Your task to perform on an android device: turn off data saver in the chrome app Image 0: 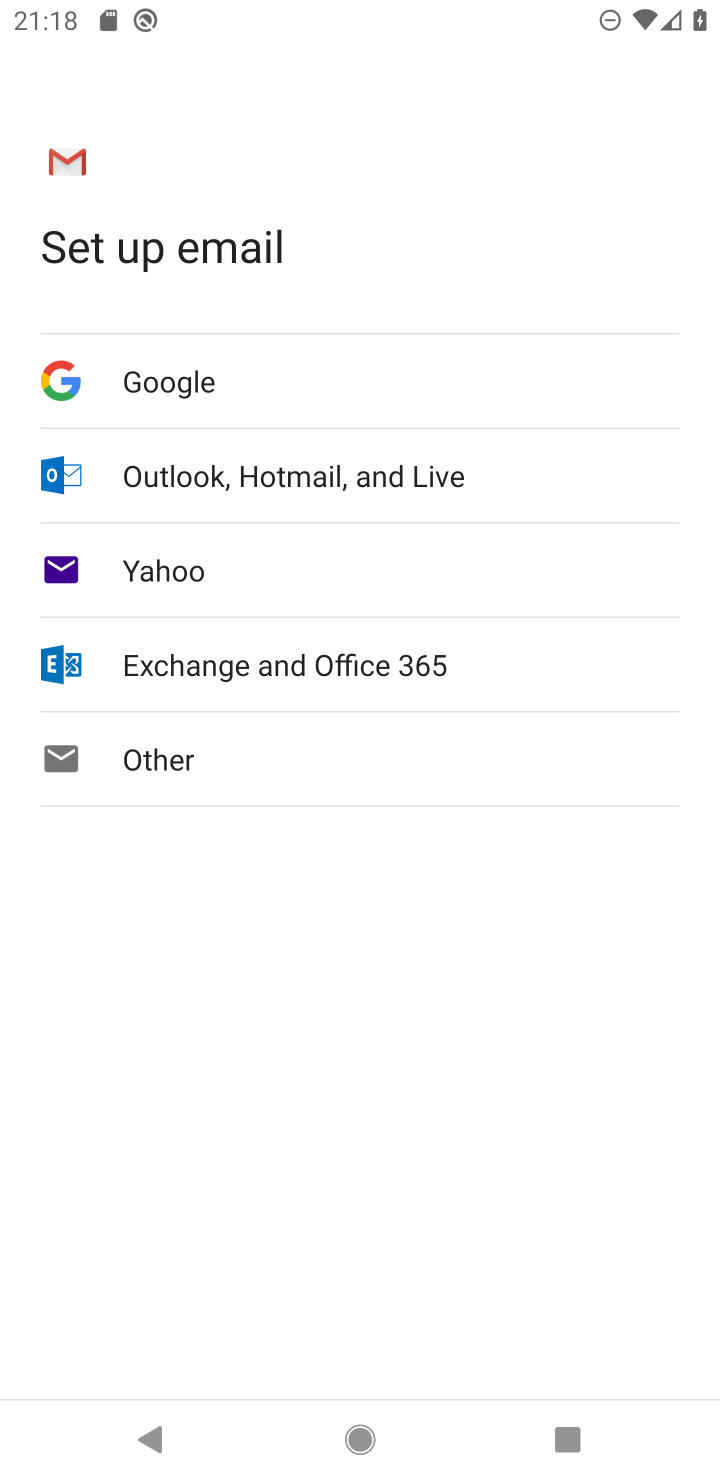
Step 0: press home button
Your task to perform on an android device: turn off data saver in the chrome app Image 1: 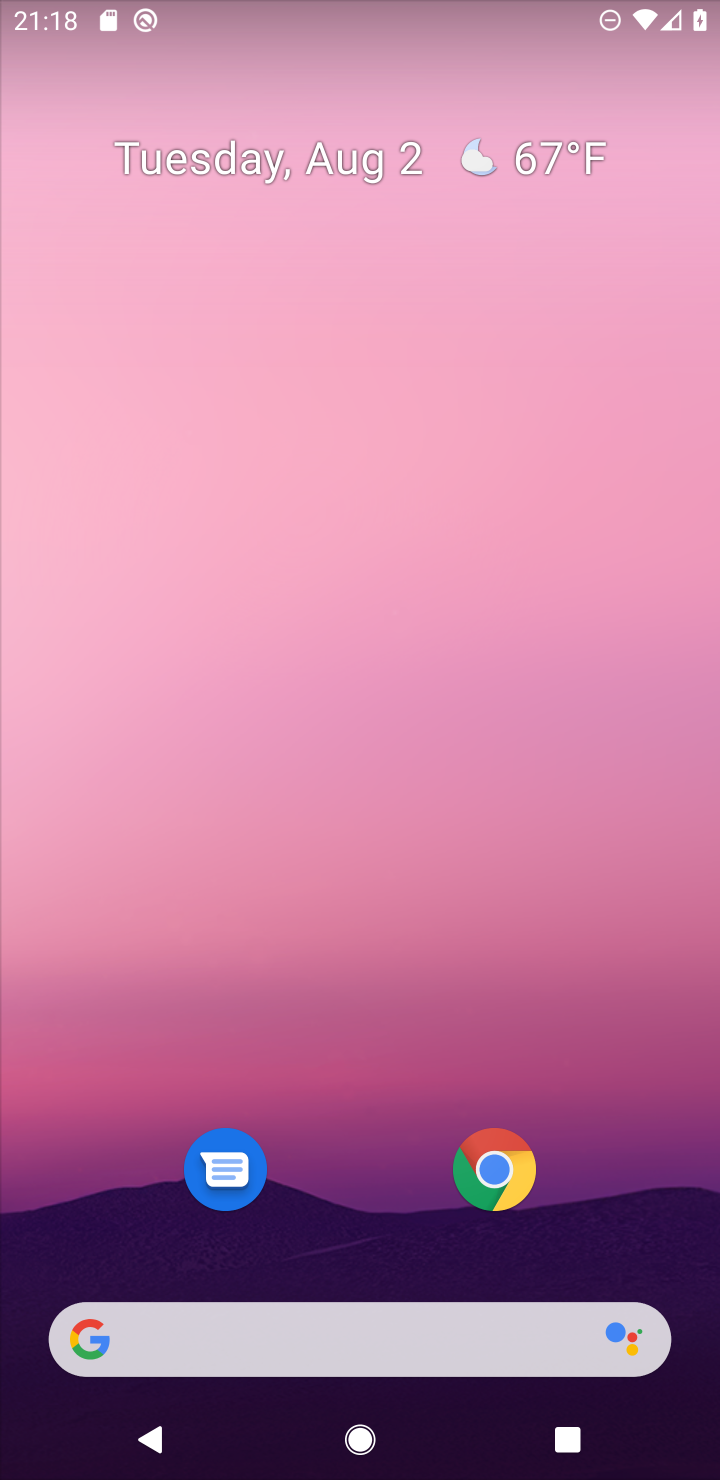
Step 1: click (495, 1166)
Your task to perform on an android device: turn off data saver in the chrome app Image 2: 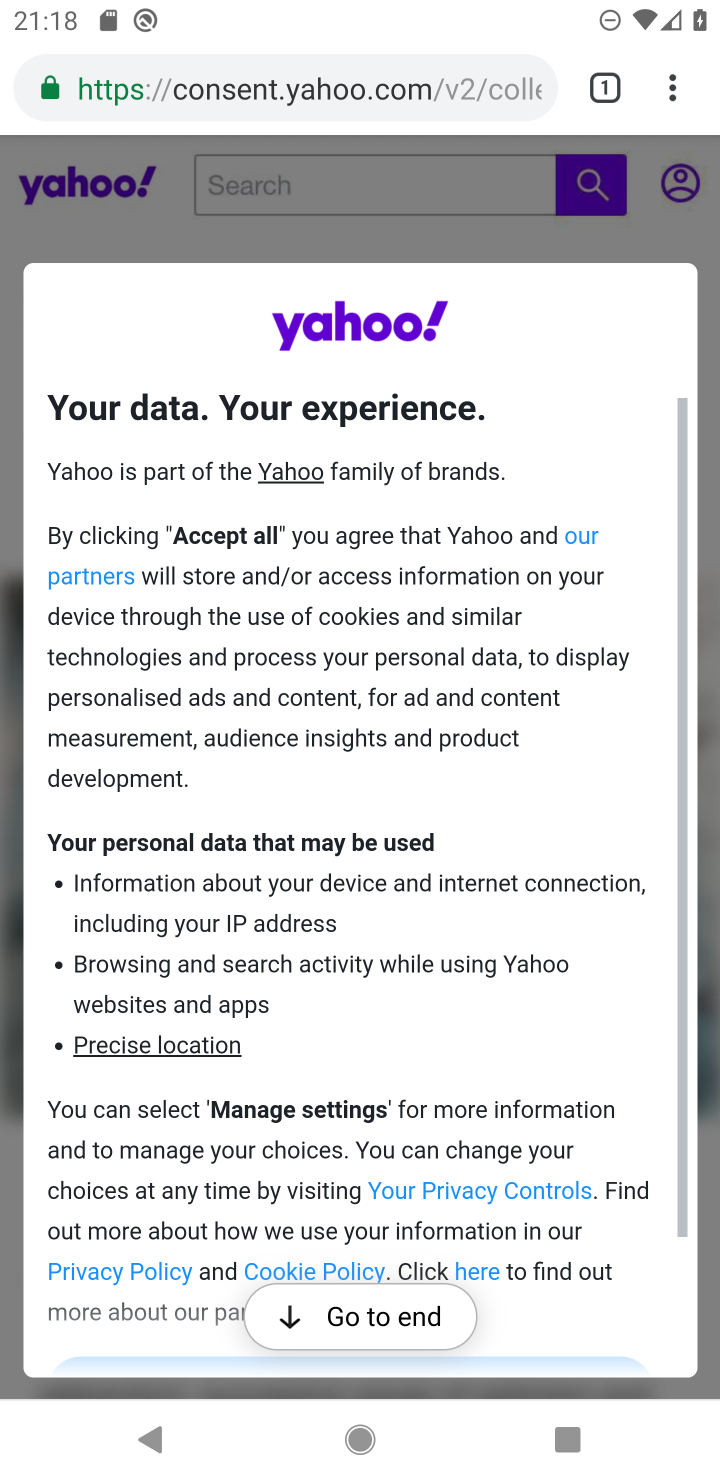
Step 2: click (666, 98)
Your task to perform on an android device: turn off data saver in the chrome app Image 3: 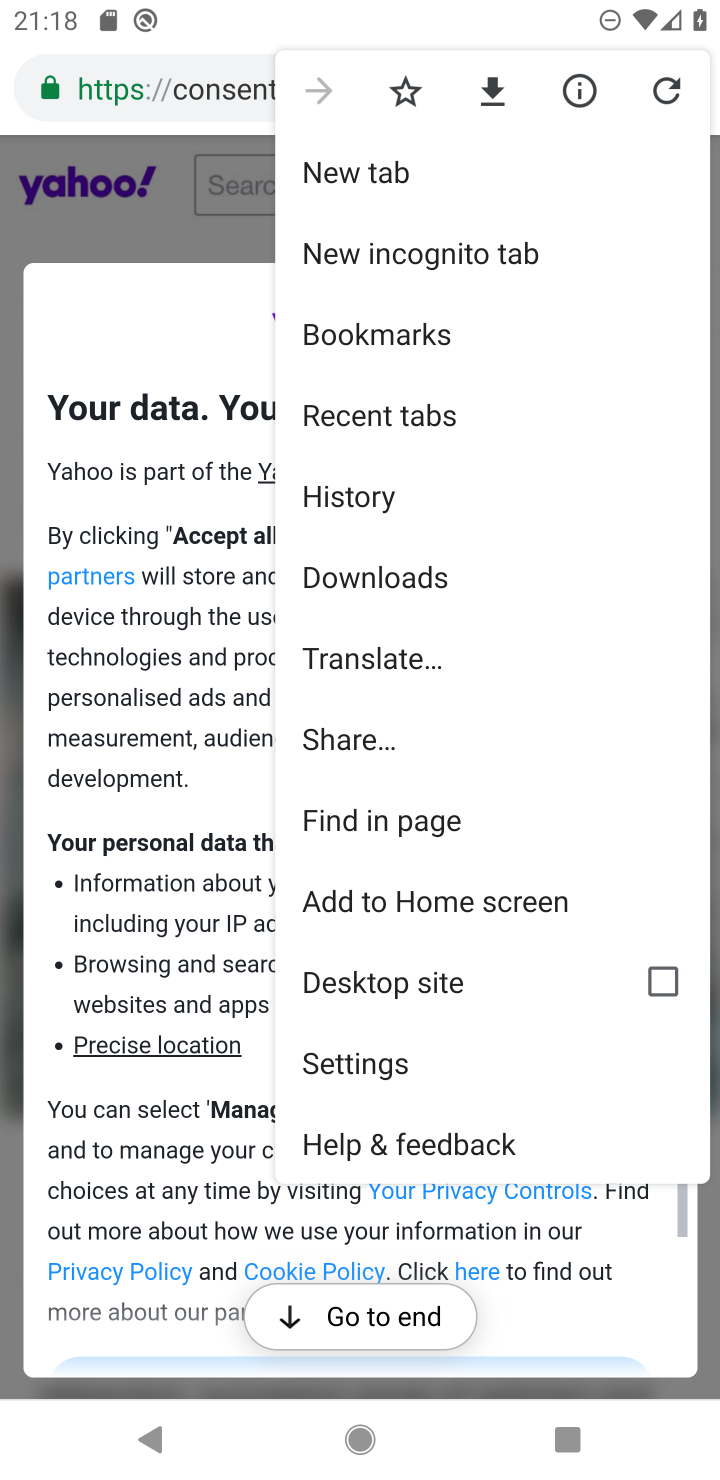
Step 3: click (361, 1059)
Your task to perform on an android device: turn off data saver in the chrome app Image 4: 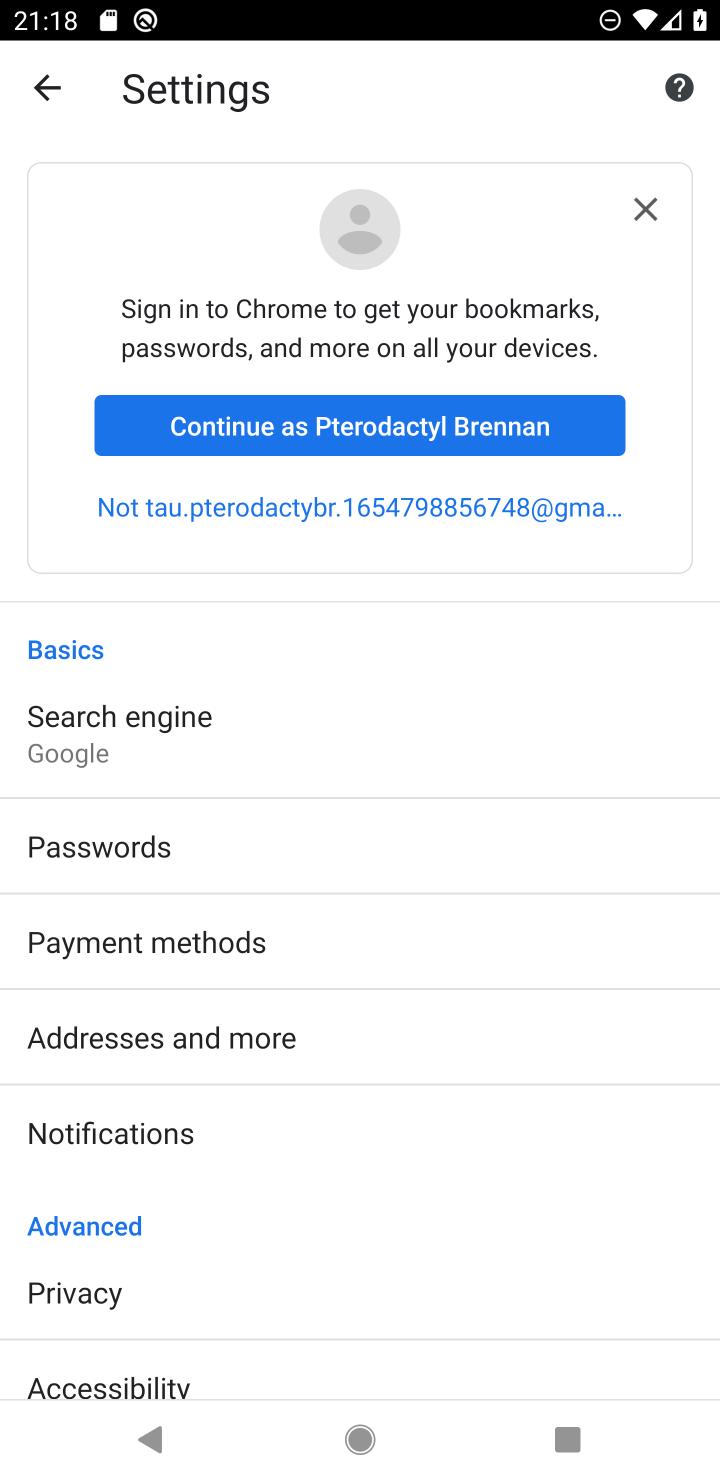
Step 4: drag from (156, 1368) to (155, 700)
Your task to perform on an android device: turn off data saver in the chrome app Image 5: 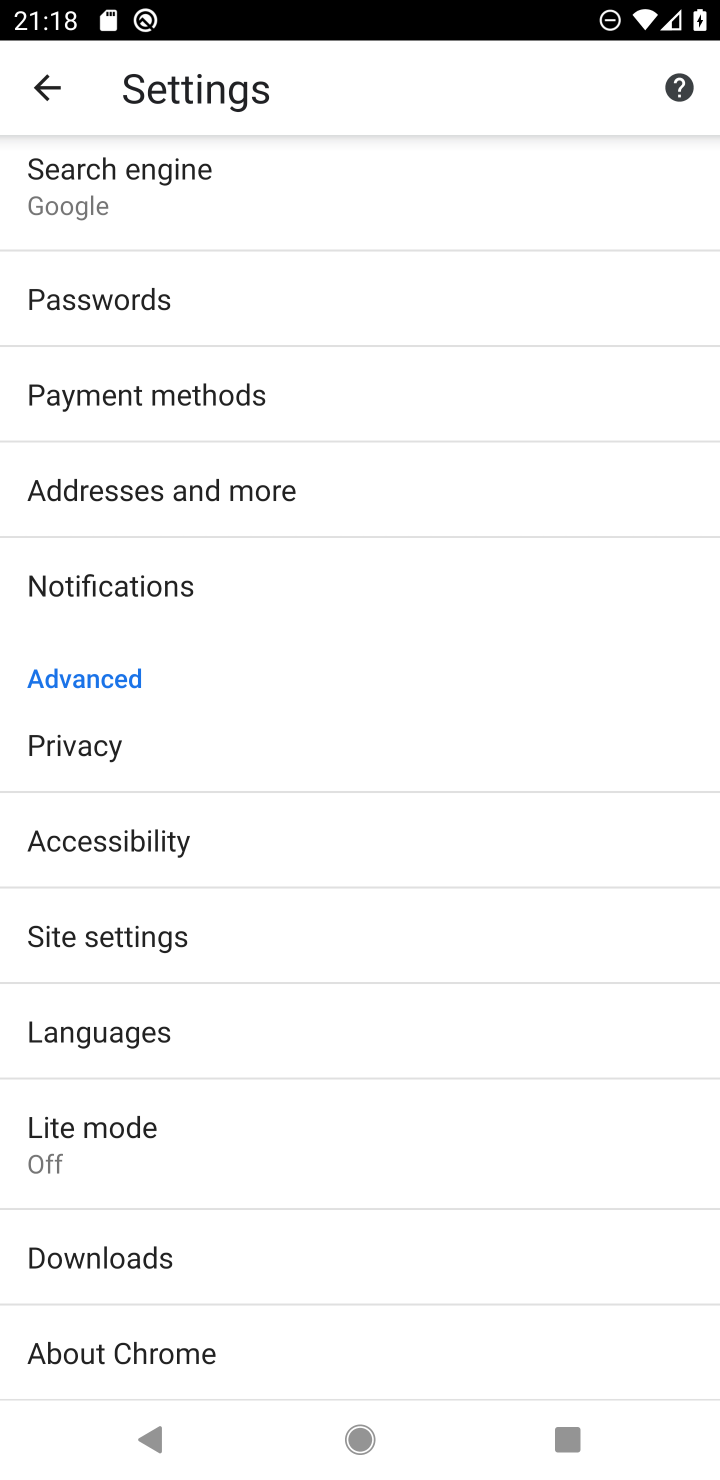
Step 5: click (75, 1123)
Your task to perform on an android device: turn off data saver in the chrome app Image 6: 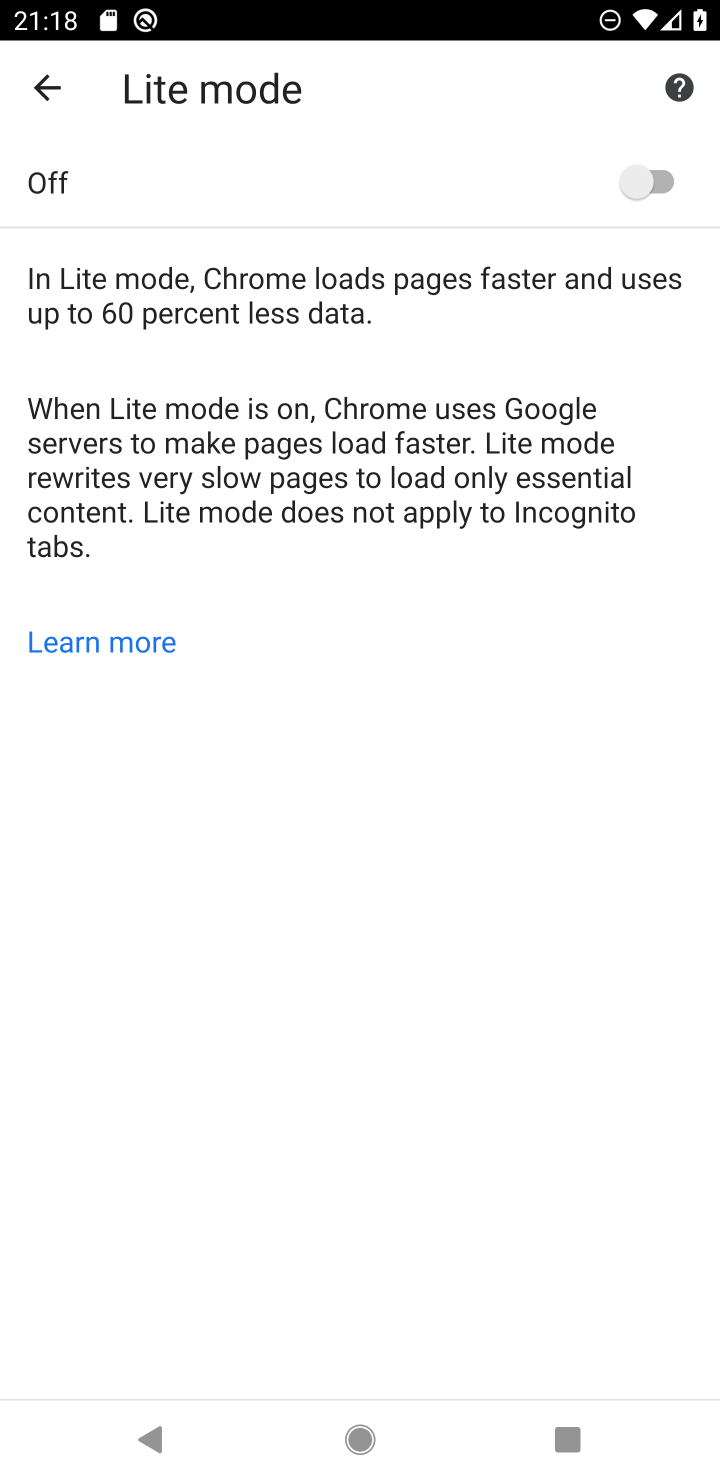
Step 6: task complete